Your task to perform on an android device: toggle sleep mode Image 0: 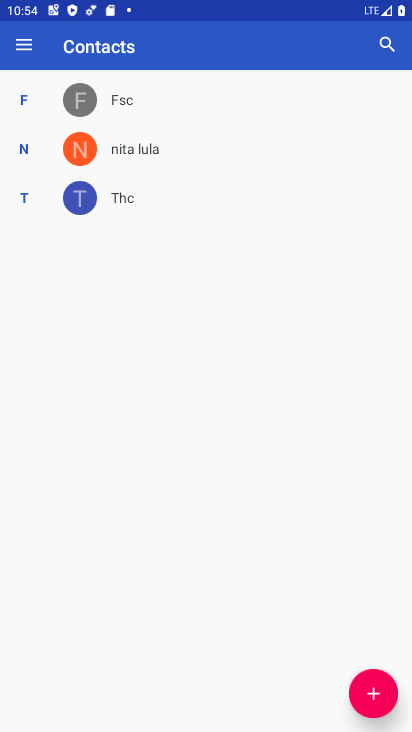
Step 0: press home button
Your task to perform on an android device: toggle sleep mode Image 1: 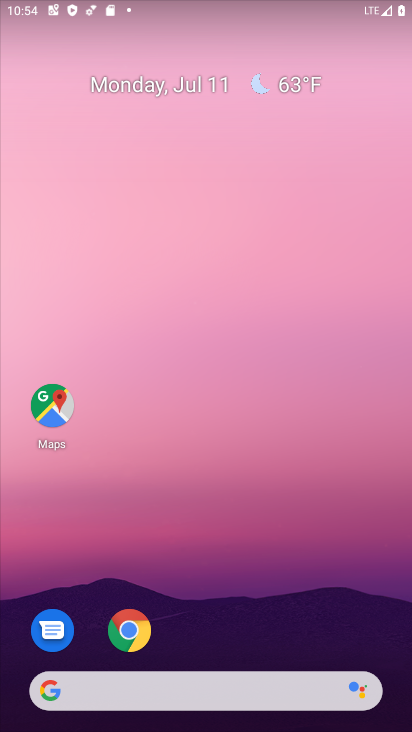
Step 1: drag from (322, 621) to (327, 97)
Your task to perform on an android device: toggle sleep mode Image 2: 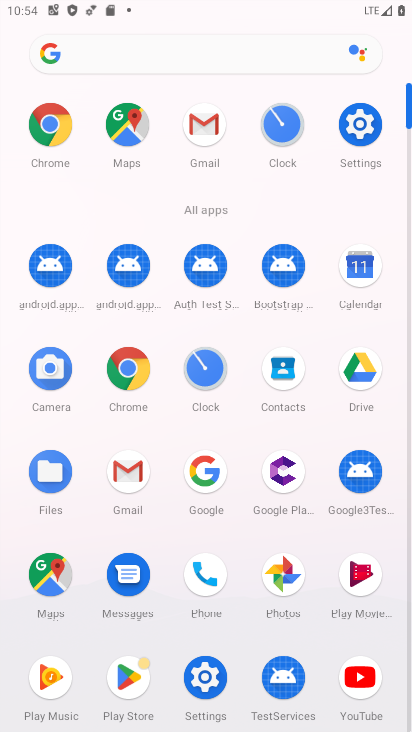
Step 2: click (203, 677)
Your task to perform on an android device: toggle sleep mode Image 3: 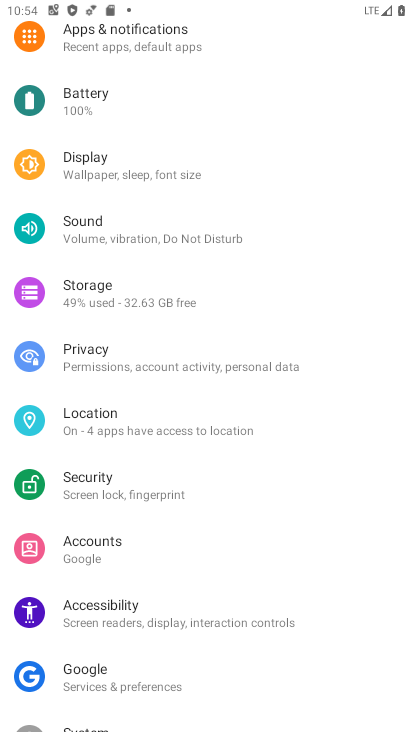
Step 3: click (83, 159)
Your task to perform on an android device: toggle sleep mode Image 4: 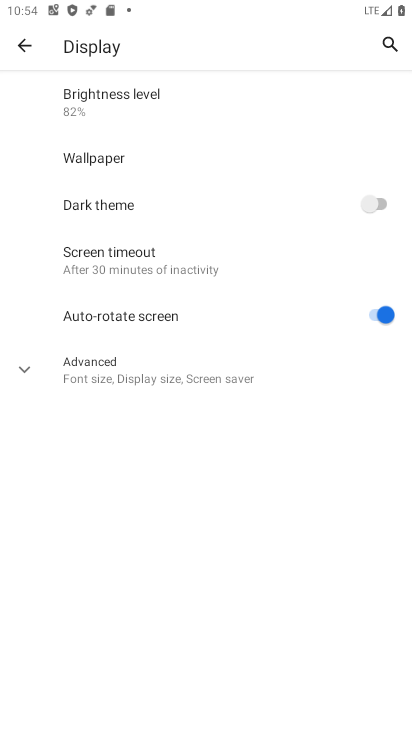
Step 4: click (30, 366)
Your task to perform on an android device: toggle sleep mode Image 5: 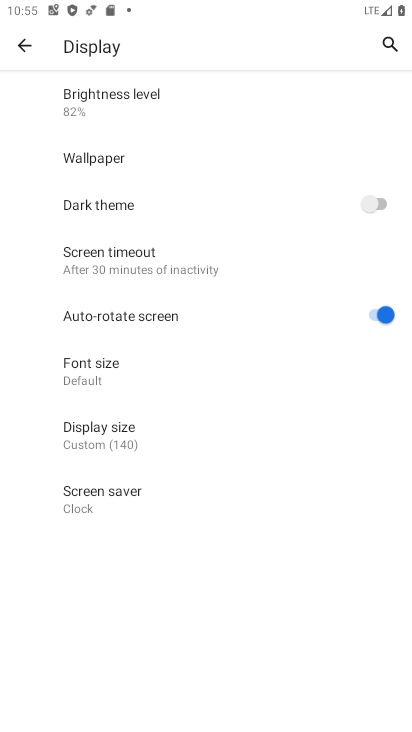
Step 5: task complete